Your task to perform on an android device: delete a single message in the gmail app Image 0: 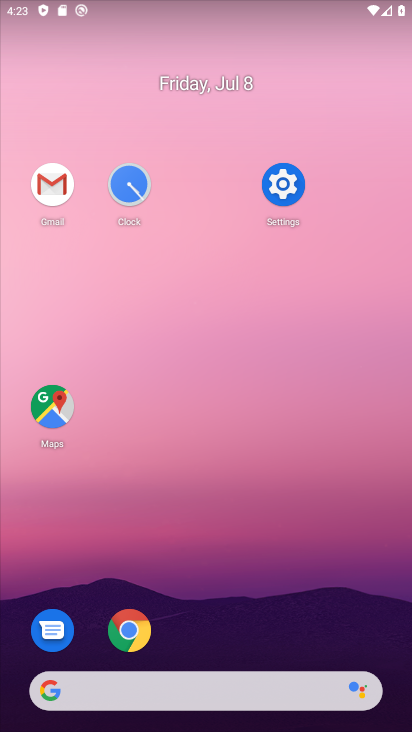
Step 0: click (51, 189)
Your task to perform on an android device: delete a single message in the gmail app Image 1: 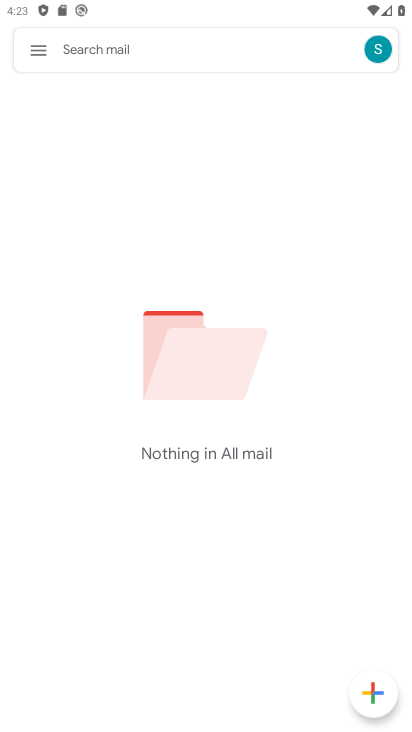
Step 1: task complete